Your task to perform on an android device: turn off sleep mode Image 0: 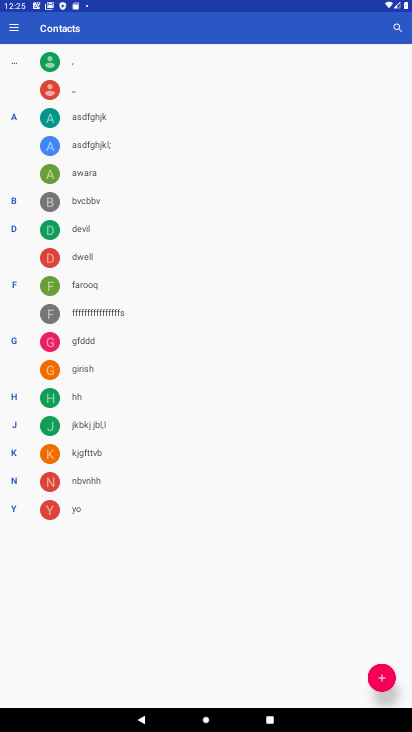
Step 0: press home button
Your task to perform on an android device: turn off sleep mode Image 1: 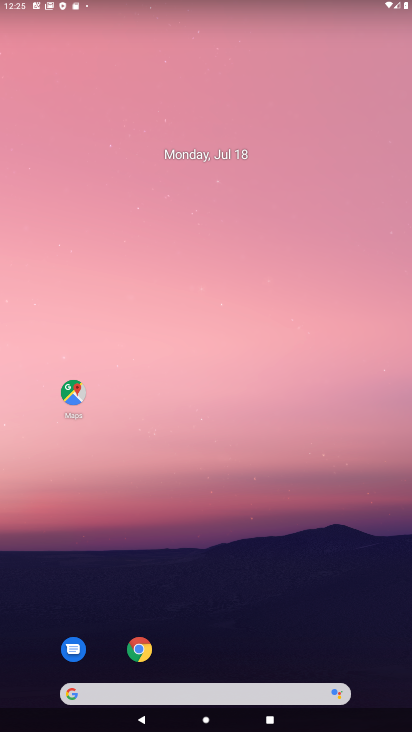
Step 1: drag from (341, 640) to (333, 163)
Your task to perform on an android device: turn off sleep mode Image 2: 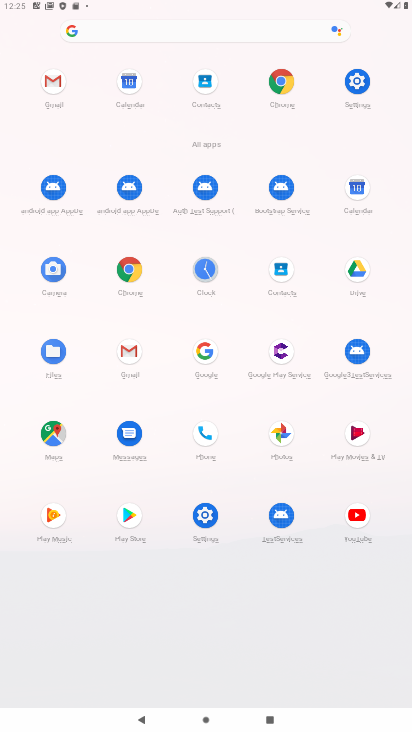
Step 2: click (204, 519)
Your task to perform on an android device: turn off sleep mode Image 3: 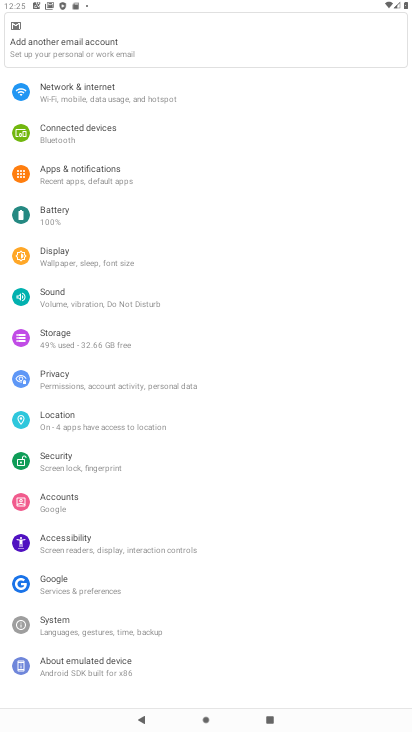
Step 3: click (72, 252)
Your task to perform on an android device: turn off sleep mode Image 4: 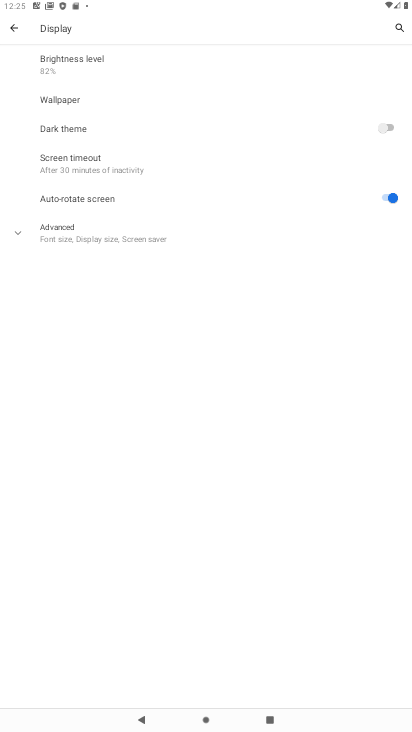
Step 4: click (22, 229)
Your task to perform on an android device: turn off sleep mode Image 5: 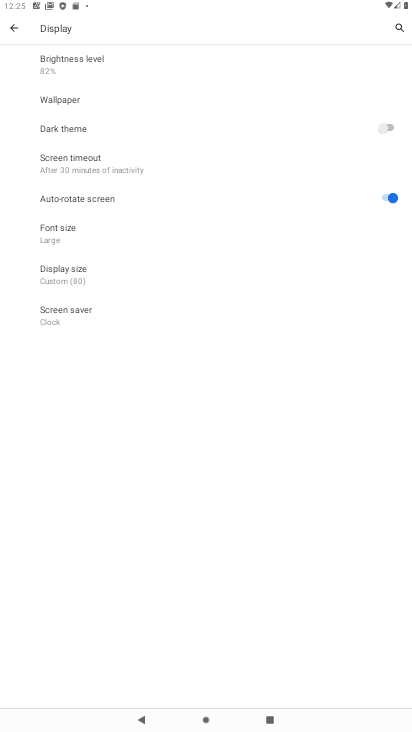
Step 5: task complete